Your task to perform on an android device: Search for seafood restaurants on Google Maps Image 0: 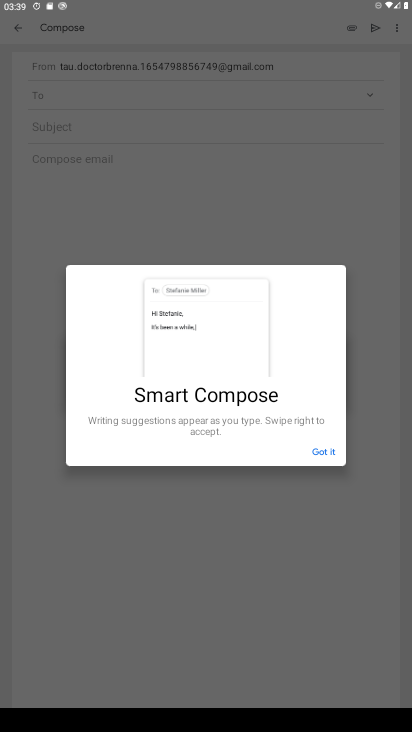
Step 0: press home button
Your task to perform on an android device: Search for seafood restaurants on Google Maps Image 1: 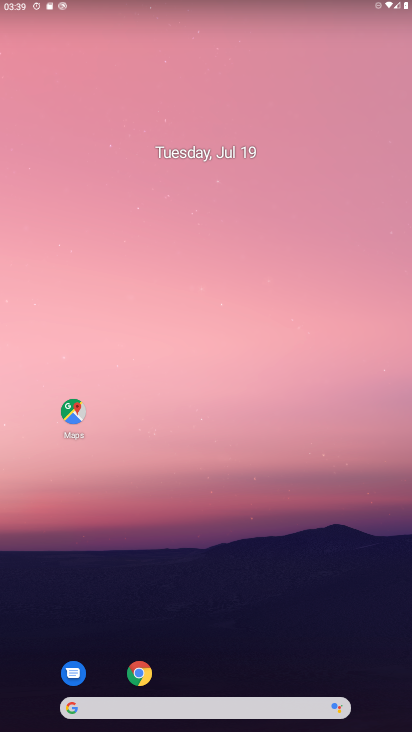
Step 1: click (75, 419)
Your task to perform on an android device: Search for seafood restaurants on Google Maps Image 2: 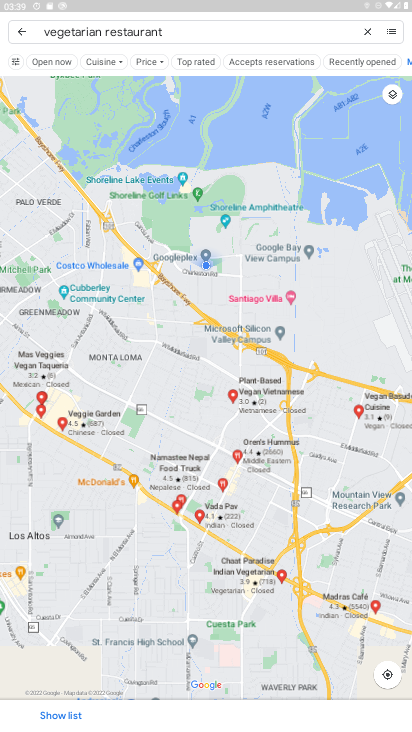
Step 2: click (75, 26)
Your task to perform on an android device: Search for seafood restaurants on Google Maps Image 3: 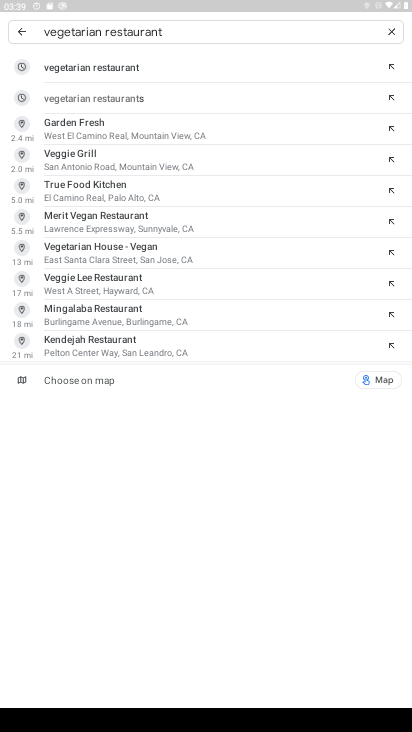
Step 3: click (73, 34)
Your task to perform on an android device: Search for seafood restaurants on Google Maps Image 4: 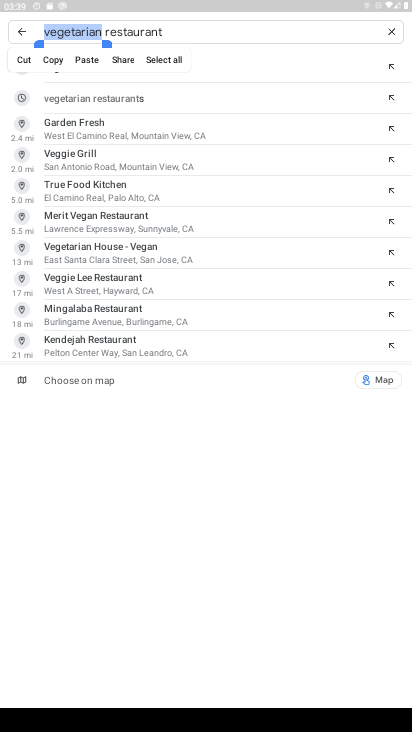
Step 4: type "seafood"
Your task to perform on an android device: Search for seafood restaurants on Google Maps Image 5: 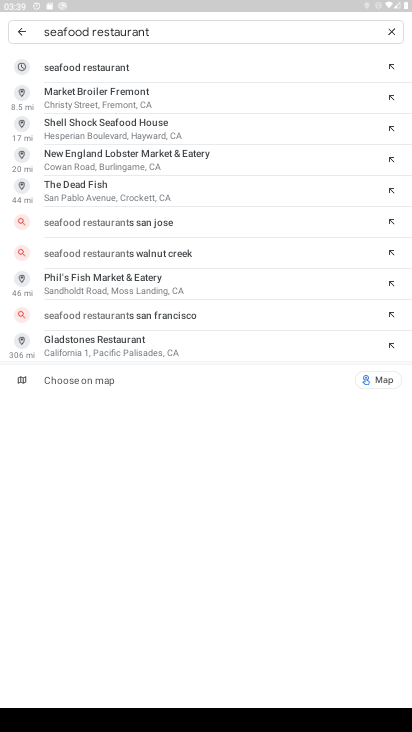
Step 5: task complete